Your task to perform on an android device: snooze an email in the gmail app Image 0: 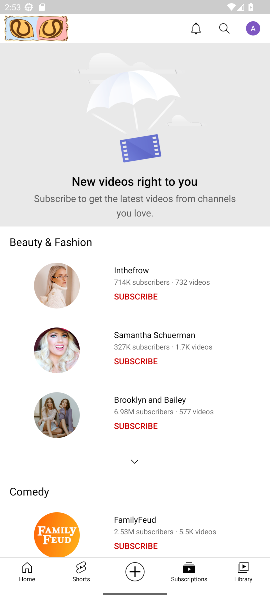
Step 0: press home button
Your task to perform on an android device: snooze an email in the gmail app Image 1: 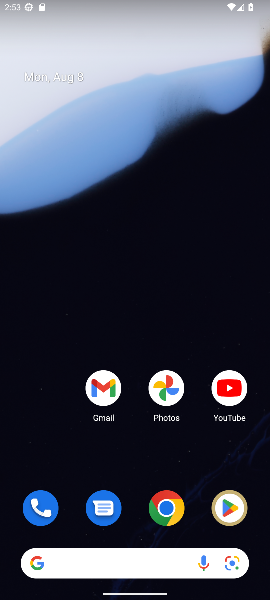
Step 1: click (96, 389)
Your task to perform on an android device: snooze an email in the gmail app Image 2: 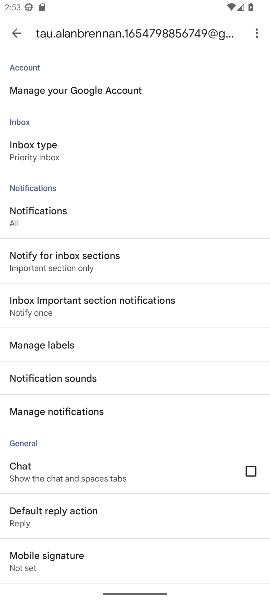
Step 2: click (15, 35)
Your task to perform on an android device: snooze an email in the gmail app Image 3: 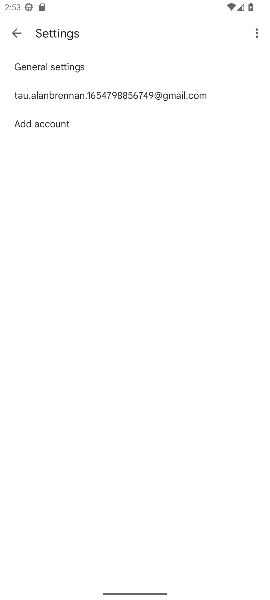
Step 3: click (19, 33)
Your task to perform on an android device: snooze an email in the gmail app Image 4: 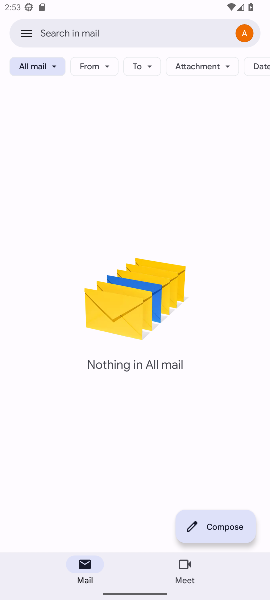
Step 4: click (26, 31)
Your task to perform on an android device: snooze an email in the gmail app Image 5: 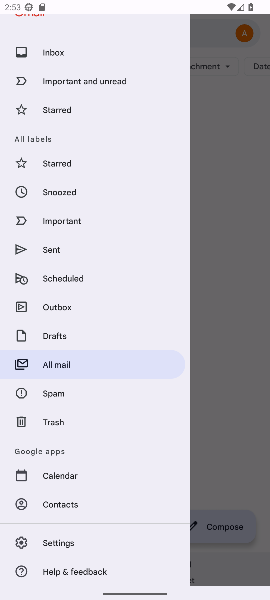
Step 5: click (61, 192)
Your task to perform on an android device: snooze an email in the gmail app Image 6: 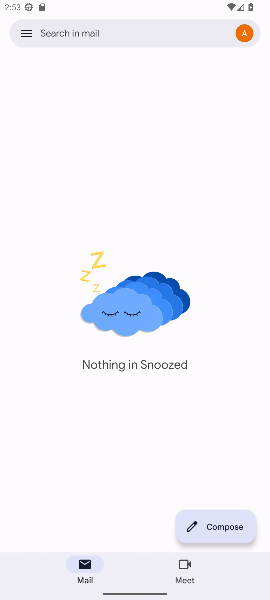
Step 6: task complete